Your task to perform on an android device: Open Chrome and go to the settings page Image 0: 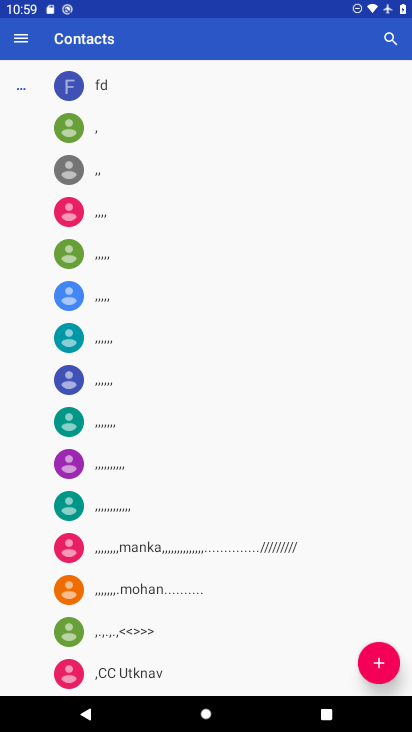
Step 0: press home button
Your task to perform on an android device: Open Chrome and go to the settings page Image 1: 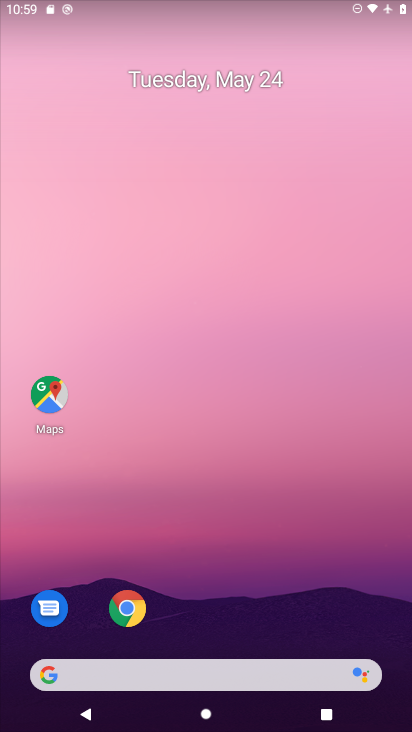
Step 1: click (128, 608)
Your task to perform on an android device: Open Chrome and go to the settings page Image 2: 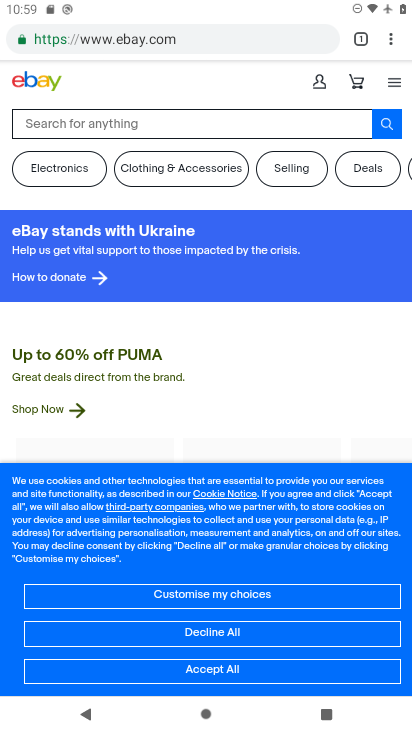
Step 2: click (387, 41)
Your task to perform on an android device: Open Chrome and go to the settings page Image 3: 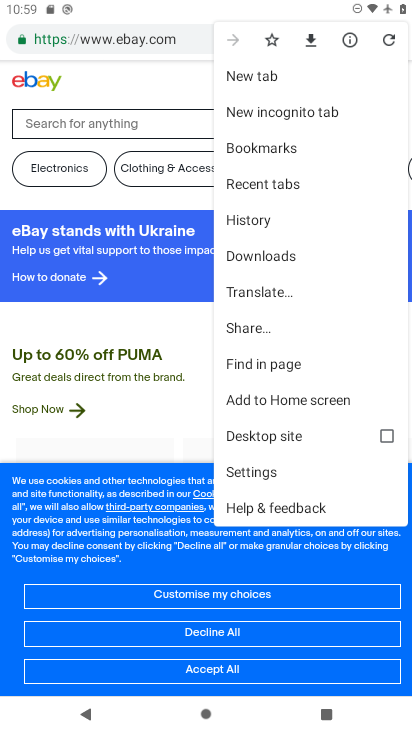
Step 3: click (255, 470)
Your task to perform on an android device: Open Chrome and go to the settings page Image 4: 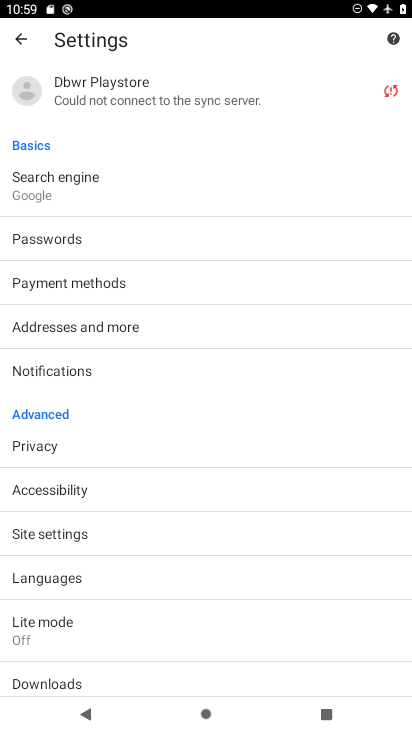
Step 4: task complete